Your task to perform on an android device: Open privacy settings Image 0: 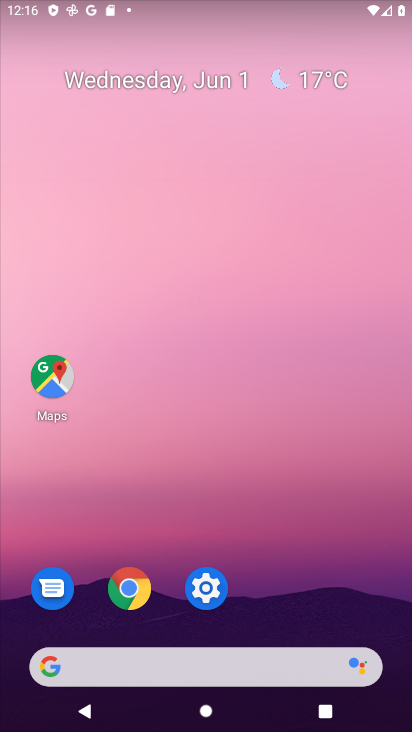
Step 0: press home button
Your task to perform on an android device: Open privacy settings Image 1: 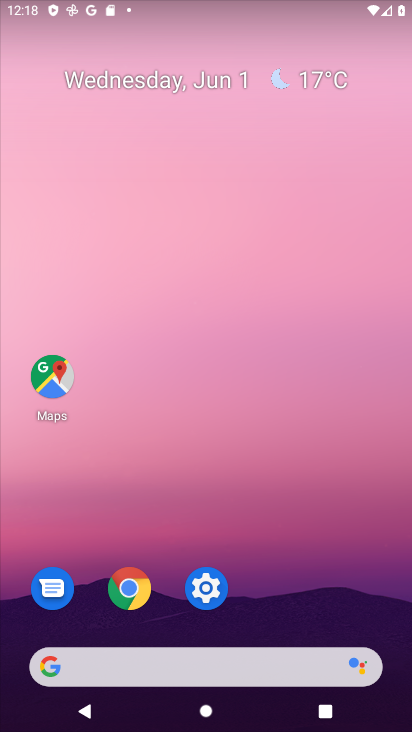
Step 1: click (202, 595)
Your task to perform on an android device: Open privacy settings Image 2: 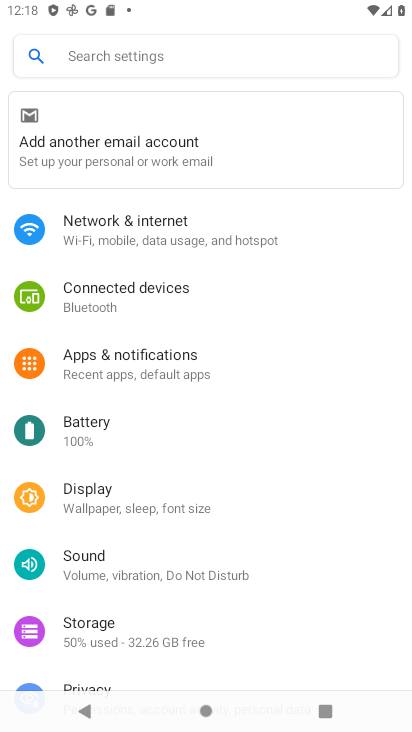
Step 2: click (90, 676)
Your task to perform on an android device: Open privacy settings Image 3: 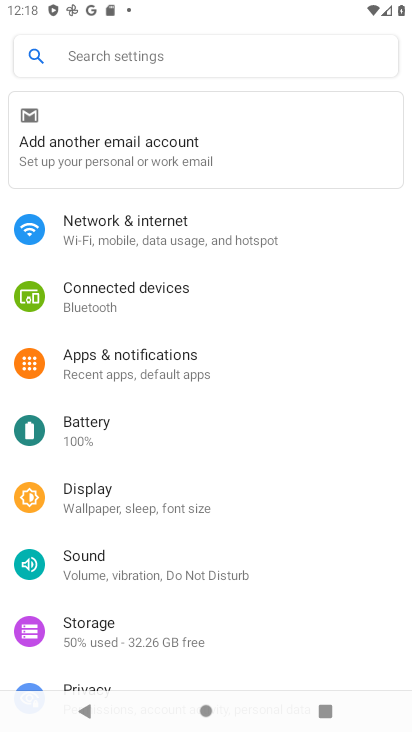
Step 3: click (85, 684)
Your task to perform on an android device: Open privacy settings Image 4: 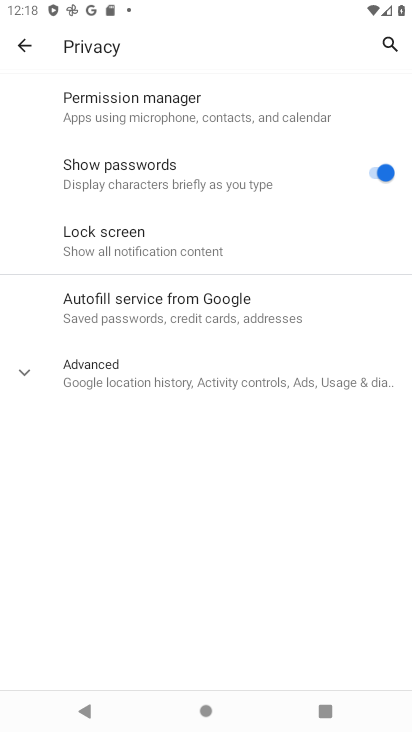
Step 4: task complete